Your task to perform on an android device: find snoozed emails in the gmail app Image 0: 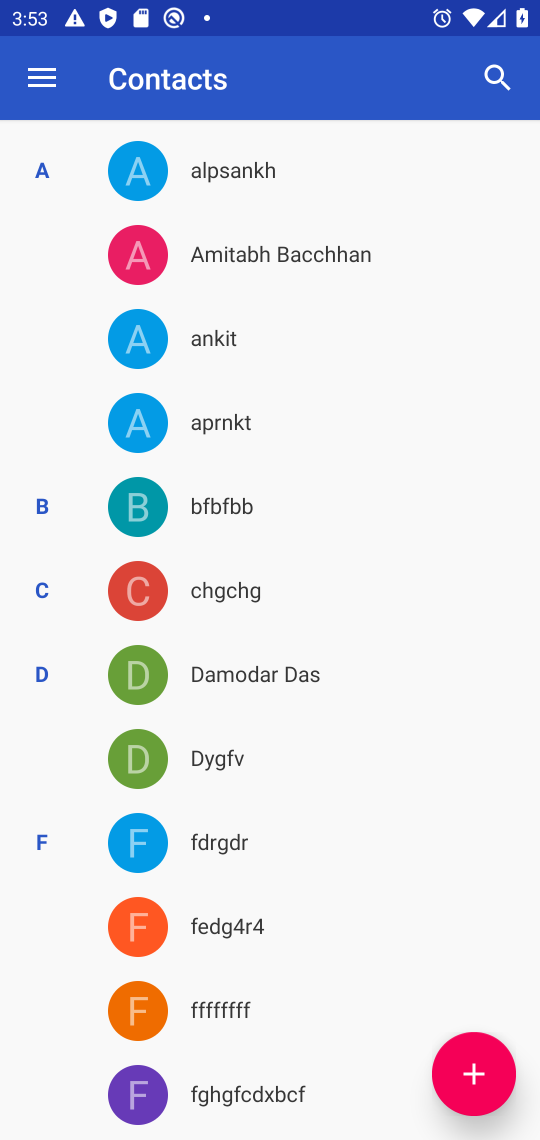
Step 0: press home button
Your task to perform on an android device: find snoozed emails in the gmail app Image 1: 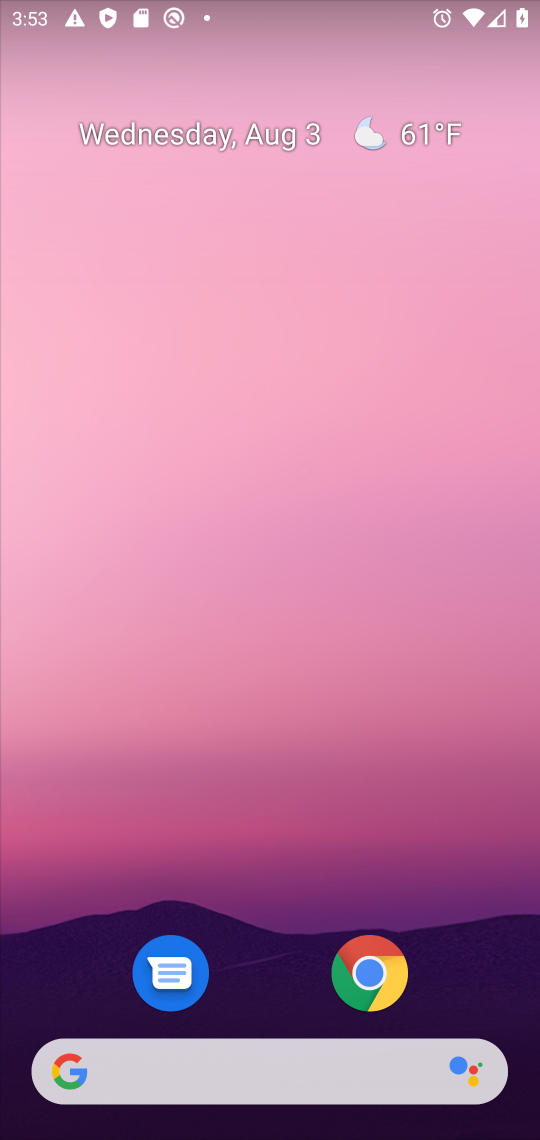
Step 1: drag from (285, 835) to (302, 66)
Your task to perform on an android device: find snoozed emails in the gmail app Image 2: 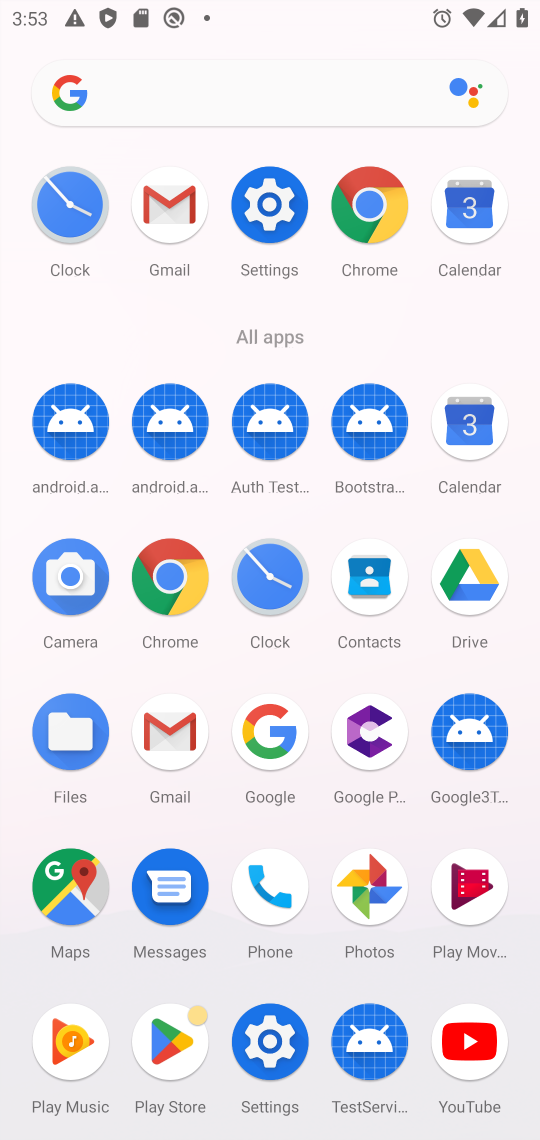
Step 2: click (167, 211)
Your task to perform on an android device: find snoozed emails in the gmail app Image 3: 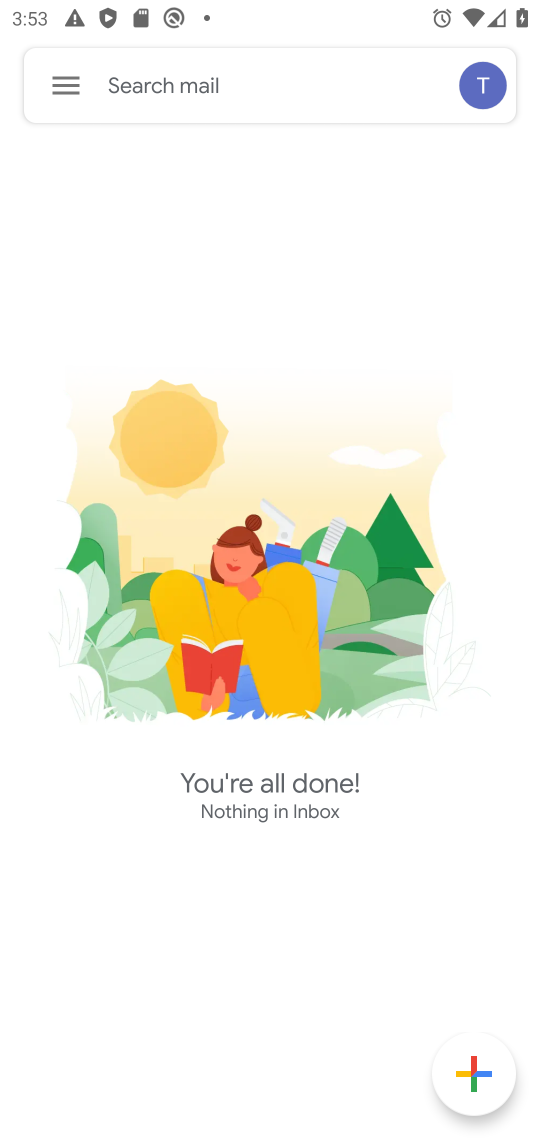
Step 3: click (60, 79)
Your task to perform on an android device: find snoozed emails in the gmail app Image 4: 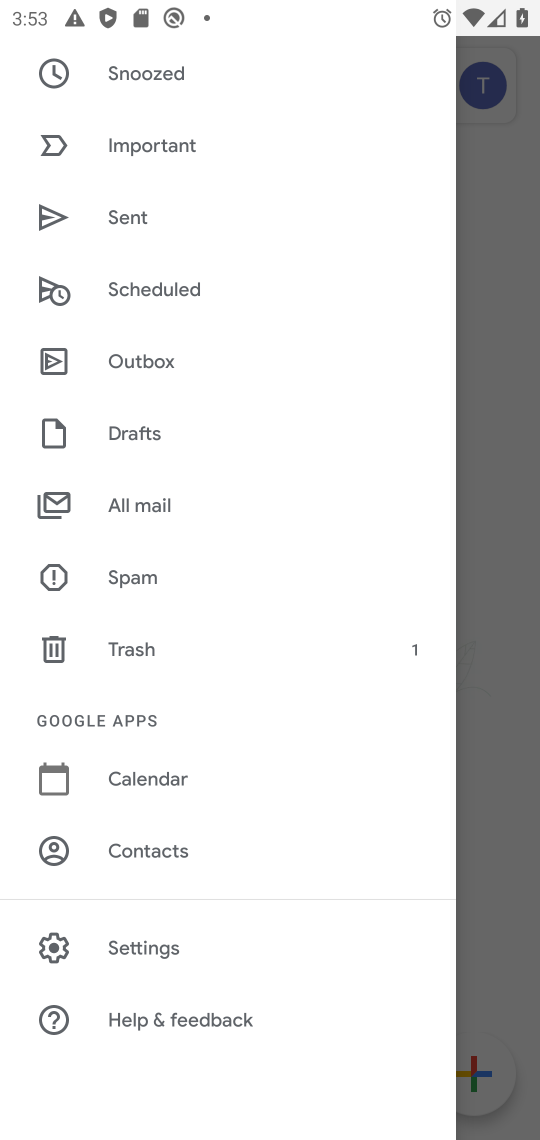
Step 4: click (172, 67)
Your task to perform on an android device: find snoozed emails in the gmail app Image 5: 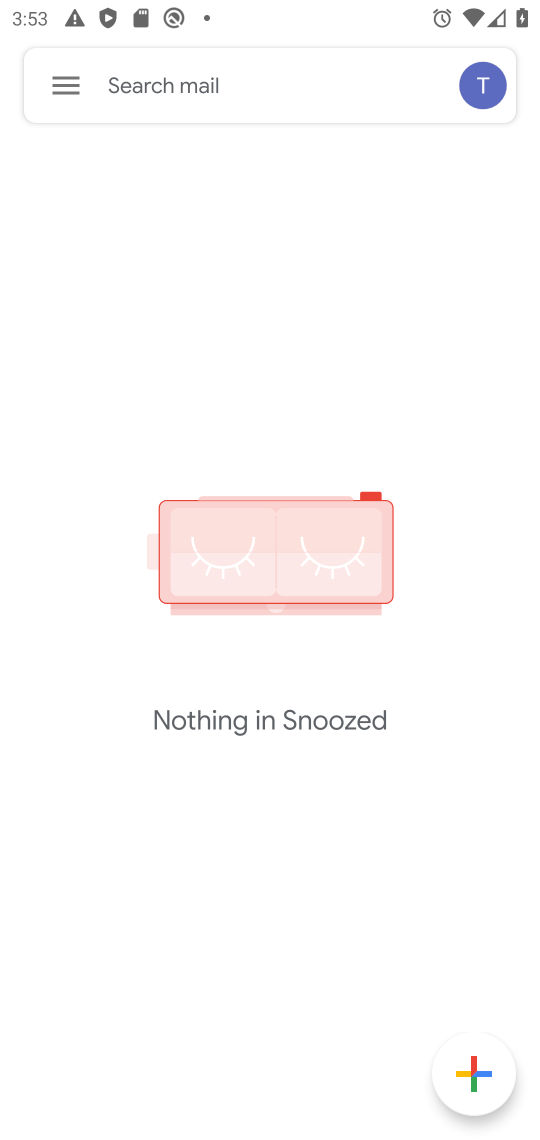
Step 5: task complete